Your task to perform on an android device: turn off wifi Image 0: 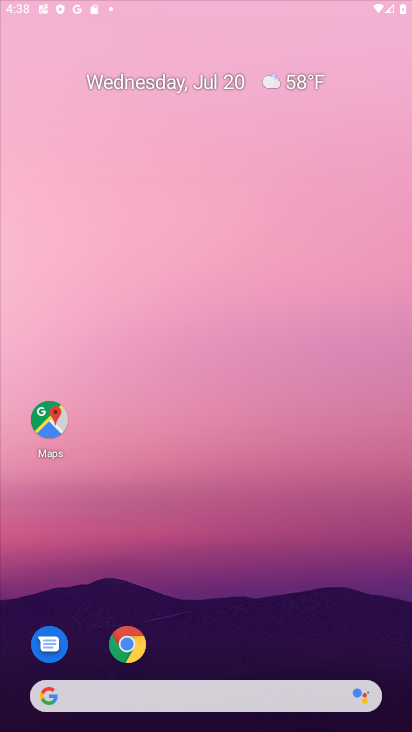
Step 0: press home button
Your task to perform on an android device: turn off wifi Image 1: 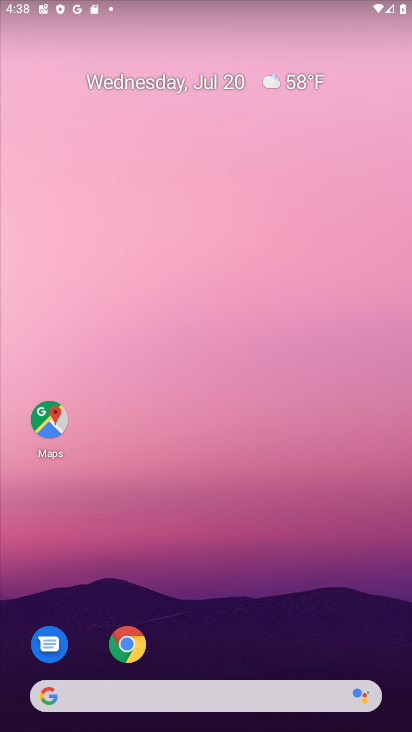
Step 1: drag from (185, 6) to (183, 617)
Your task to perform on an android device: turn off wifi Image 2: 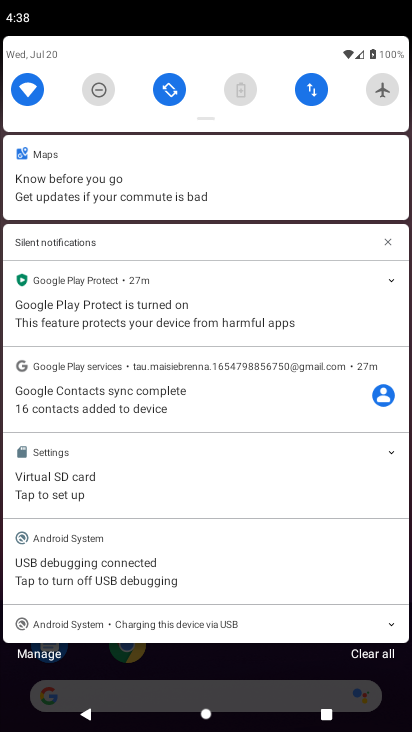
Step 2: click (28, 88)
Your task to perform on an android device: turn off wifi Image 3: 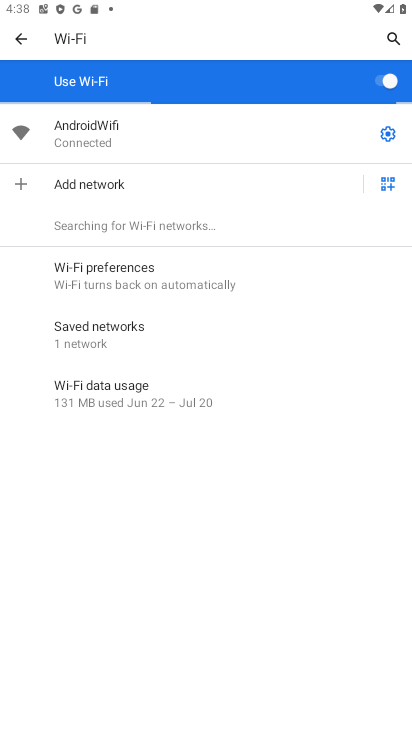
Step 3: click (389, 82)
Your task to perform on an android device: turn off wifi Image 4: 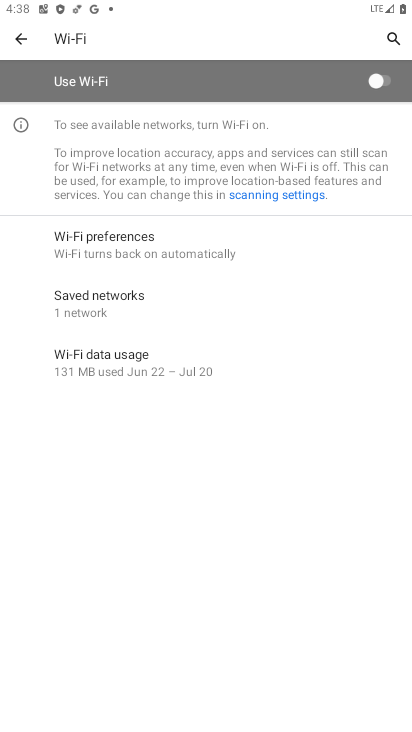
Step 4: task complete